Your task to perform on an android device: move a message to another label in the gmail app Image 0: 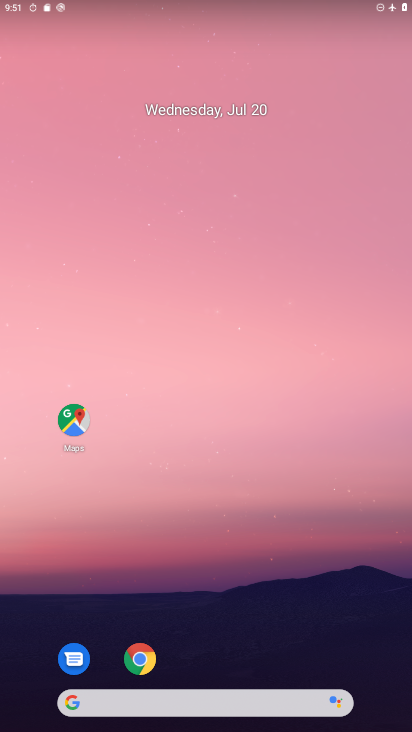
Step 0: drag from (270, 606) to (267, 70)
Your task to perform on an android device: move a message to another label in the gmail app Image 1: 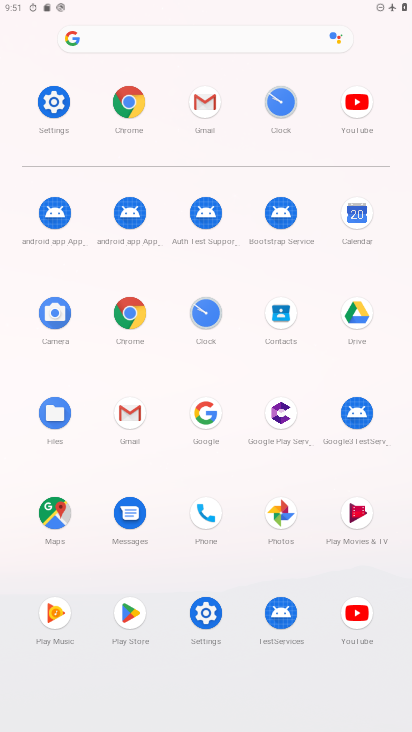
Step 1: click (131, 425)
Your task to perform on an android device: move a message to another label in the gmail app Image 2: 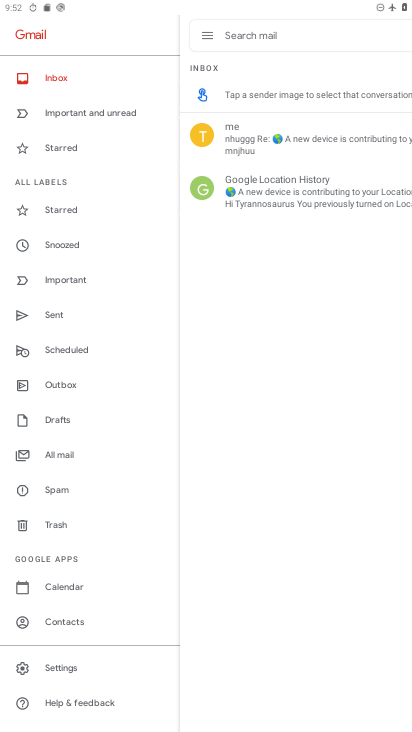
Step 2: click (301, 207)
Your task to perform on an android device: move a message to another label in the gmail app Image 3: 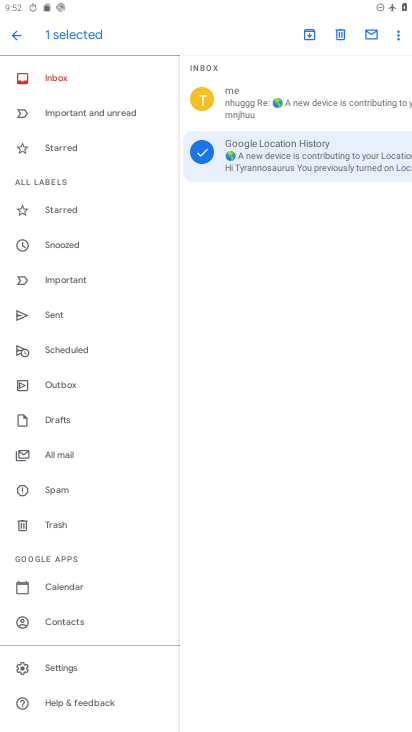
Step 3: click (401, 35)
Your task to perform on an android device: move a message to another label in the gmail app Image 4: 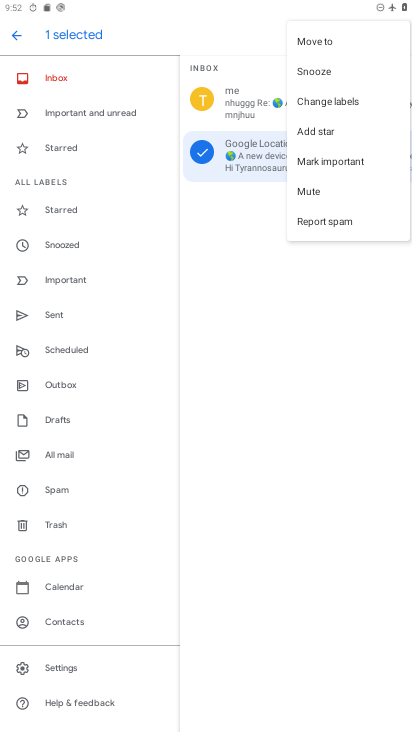
Step 4: click (329, 103)
Your task to perform on an android device: move a message to another label in the gmail app Image 5: 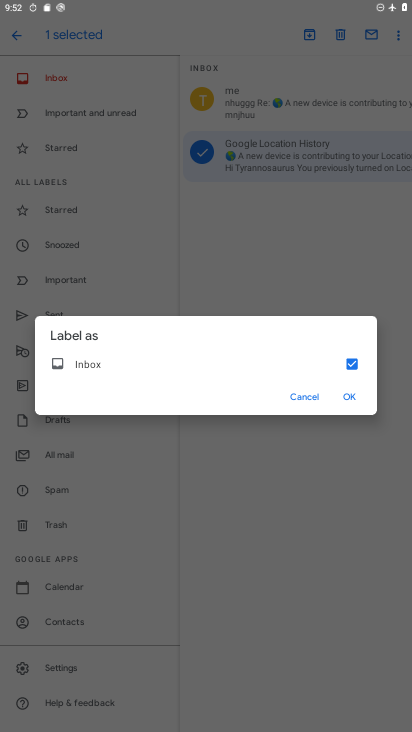
Step 5: click (357, 368)
Your task to perform on an android device: move a message to another label in the gmail app Image 6: 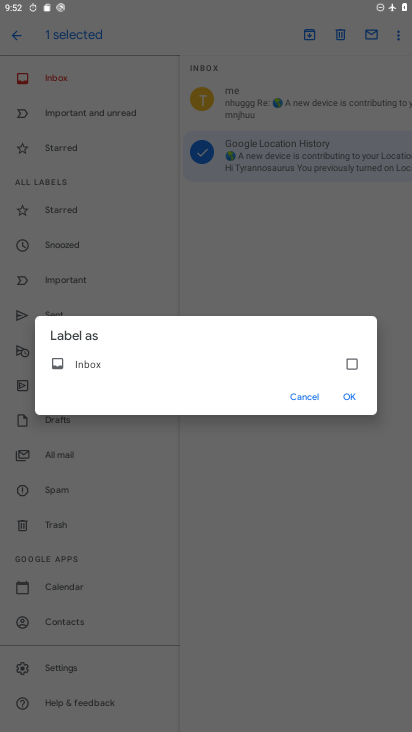
Step 6: click (348, 391)
Your task to perform on an android device: move a message to another label in the gmail app Image 7: 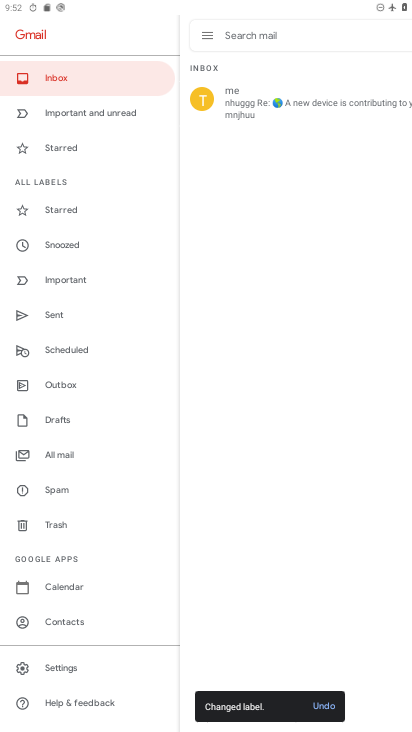
Step 7: task complete